Your task to perform on an android device: turn off location history Image 0: 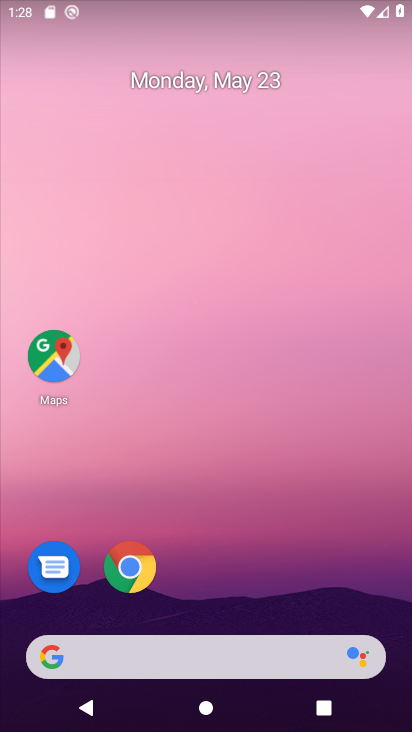
Step 0: drag from (262, 626) to (232, 179)
Your task to perform on an android device: turn off location history Image 1: 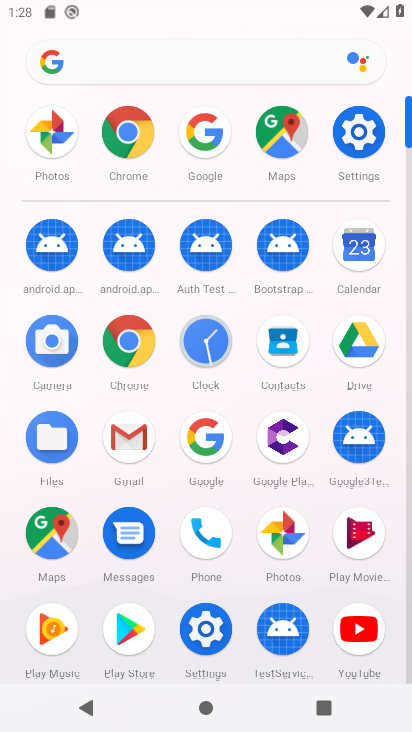
Step 1: click (194, 639)
Your task to perform on an android device: turn off location history Image 2: 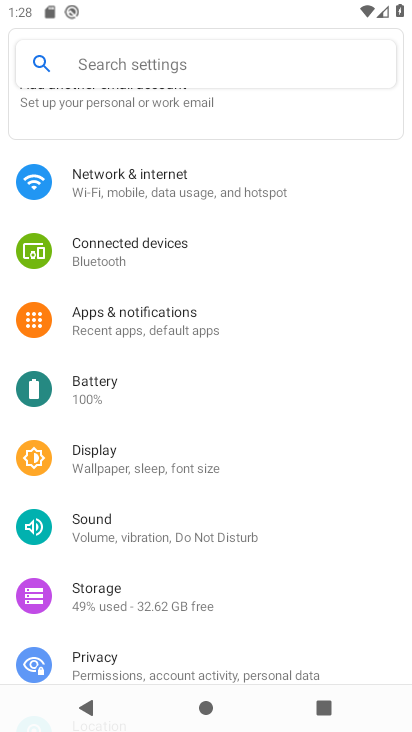
Step 2: drag from (179, 542) to (216, 259)
Your task to perform on an android device: turn off location history Image 3: 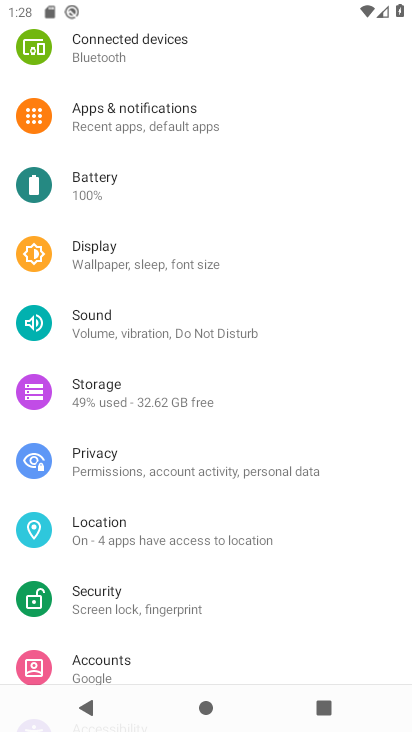
Step 3: click (115, 524)
Your task to perform on an android device: turn off location history Image 4: 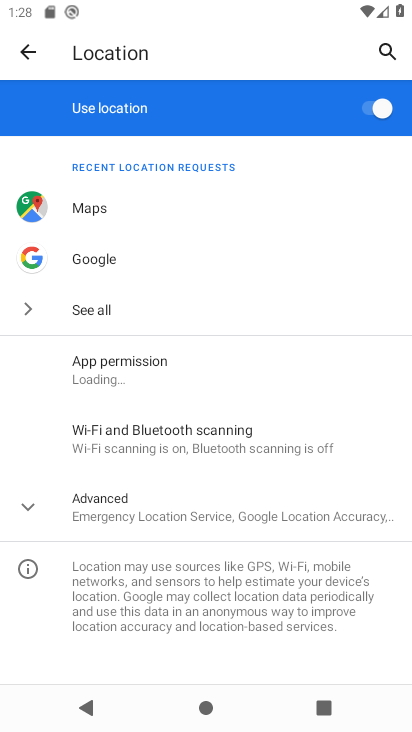
Step 4: click (161, 520)
Your task to perform on an android device: turn off location history Image 5: 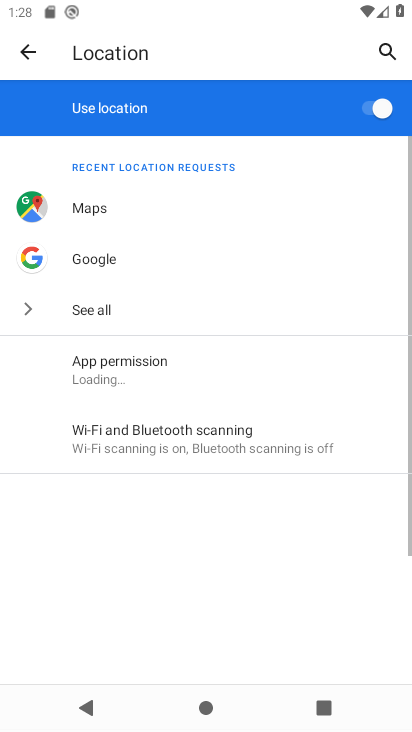
Step 5: drag from (161, 520) to (231, 259)
Your task to perform on an android device: turn off location history Image 6: 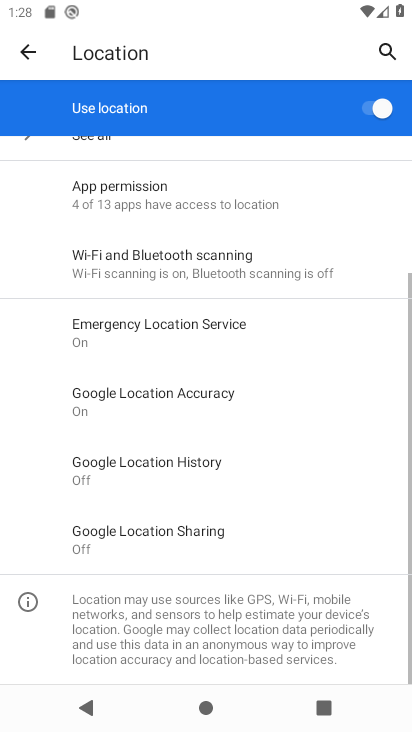
Step 6: click (174, 466)
Your task to perform on an android device: turn off location history Image 7: 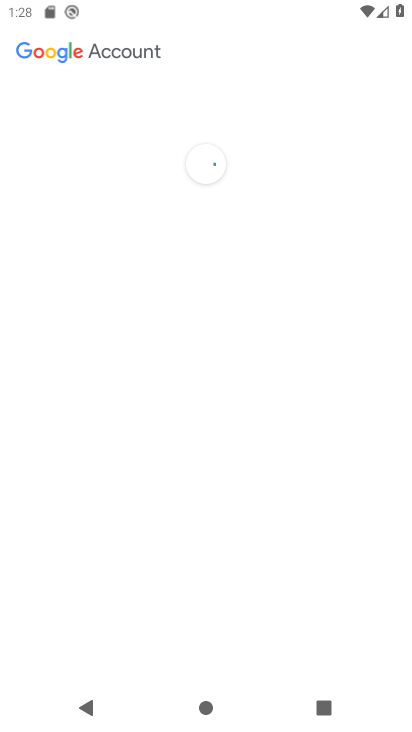
Step 7: task complete